Your task to perform on an android device: Turn on the flashlight Image 0: 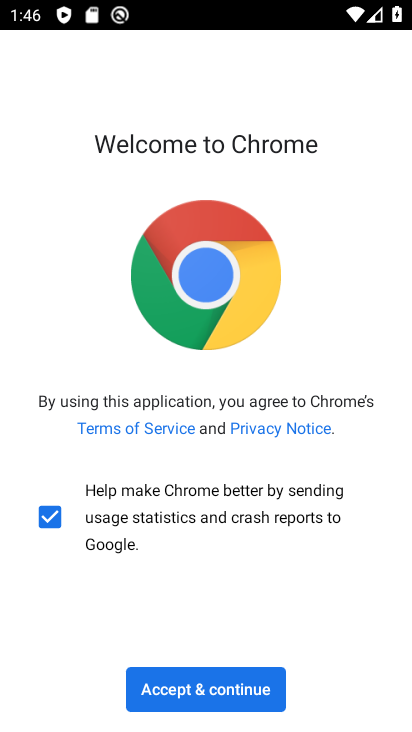
Step 0: drag from (223, 4) to (261, 384)
Your task to perform on an android device: Turn on the flashlight Image 1: 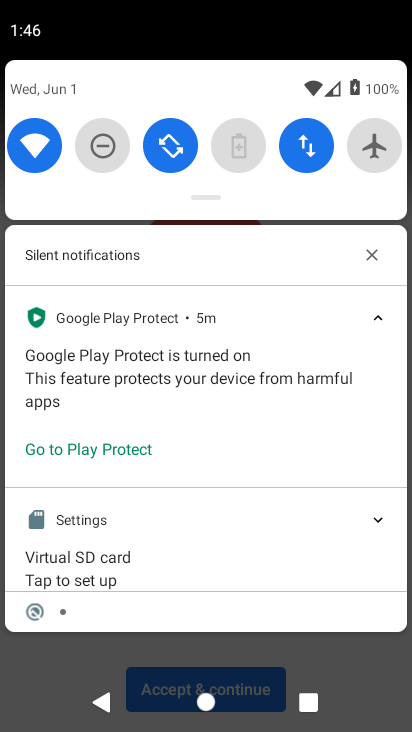
Step 1: task complete